Your task to perform on an android device: Open ESPN.com Image 0: 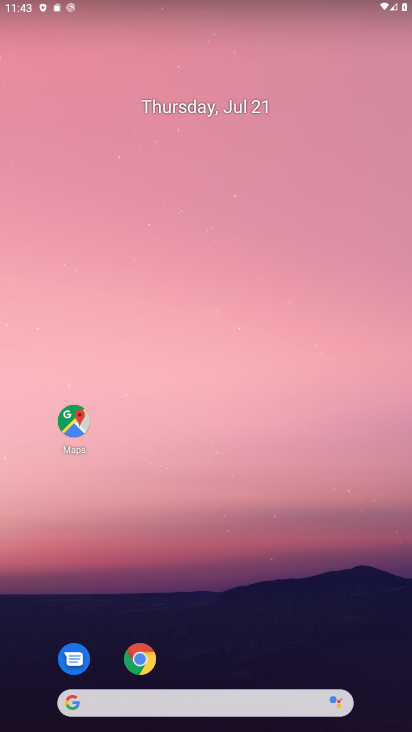
Step 0: click (201, 705)
Your task to perform on an android device: Open ESPN.com Image 1: 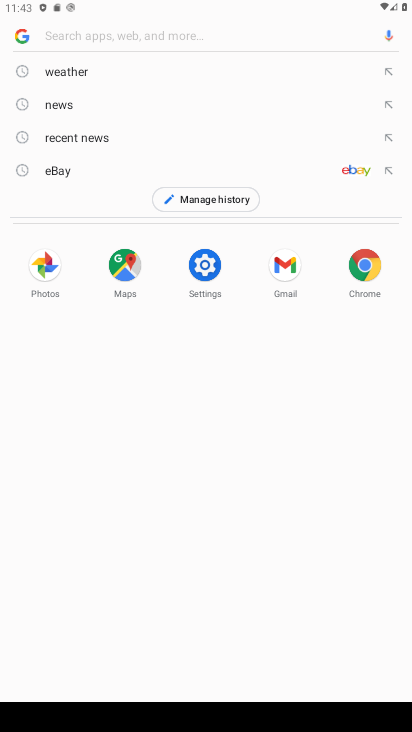
Step 1: type "espn.com"
Your task to perform on an android device: Open ESPN.com Image 2: 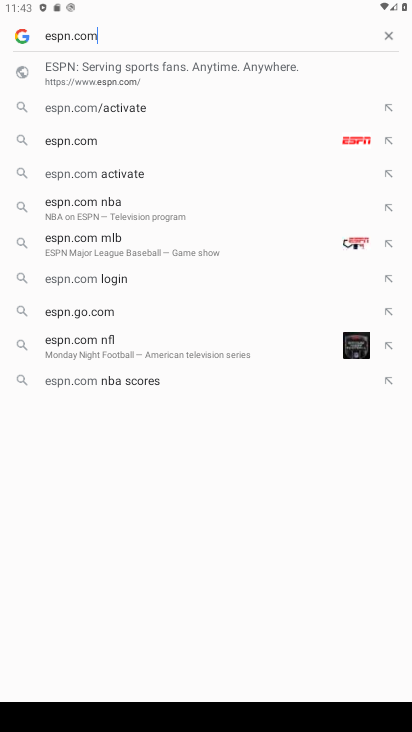
Step 2: click (79, 88)
Your task to perform on an android device: Open ESPN.com Image 3: 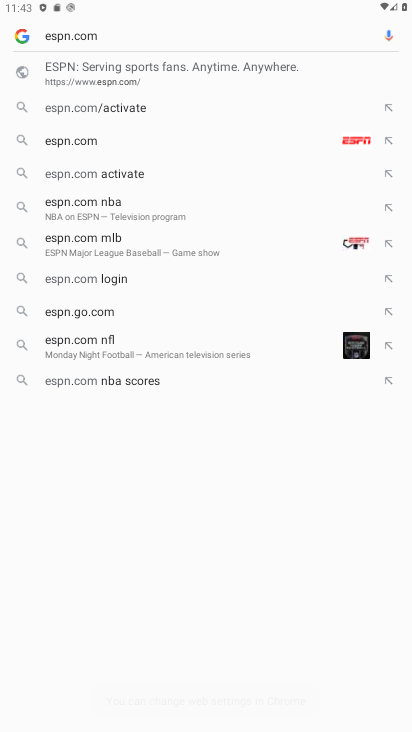
Step 3: task complete